Your task to perform on an android device: What is the recent news? Image 0: 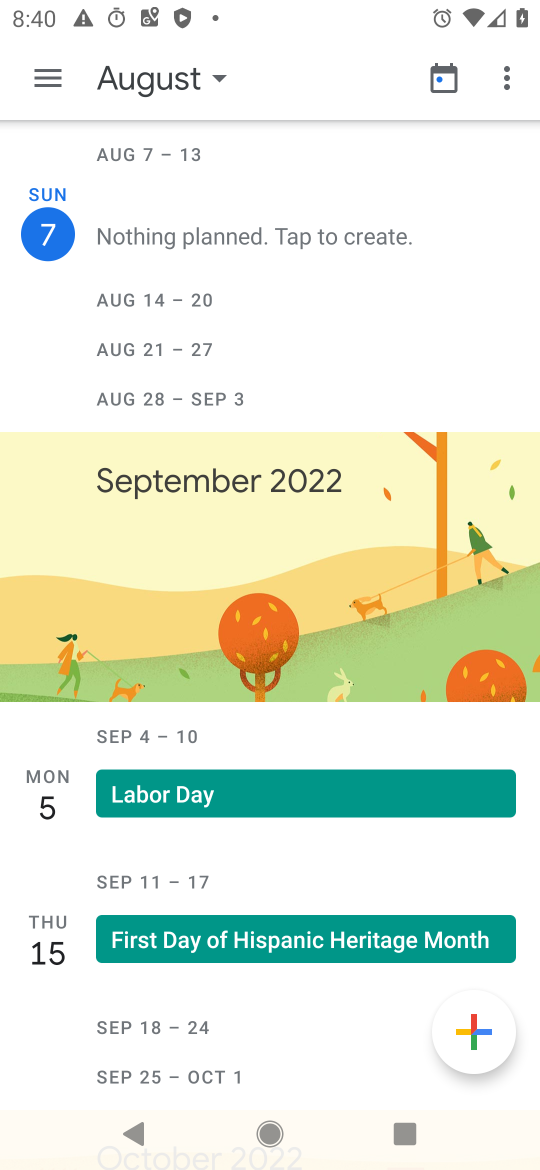
Step 0: press home button
Your task to perform on an android device: What is the recent news? Image 1: 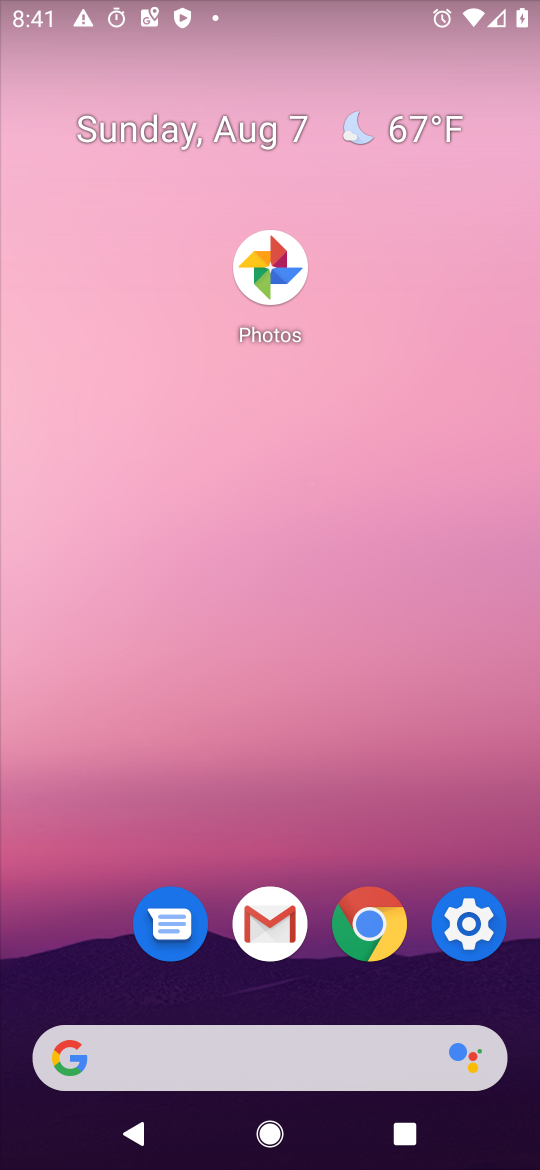
Step 1: drag from (351, 967) to (395, 199)
Your task to perform on an android device: What is the recent news? Image 2: 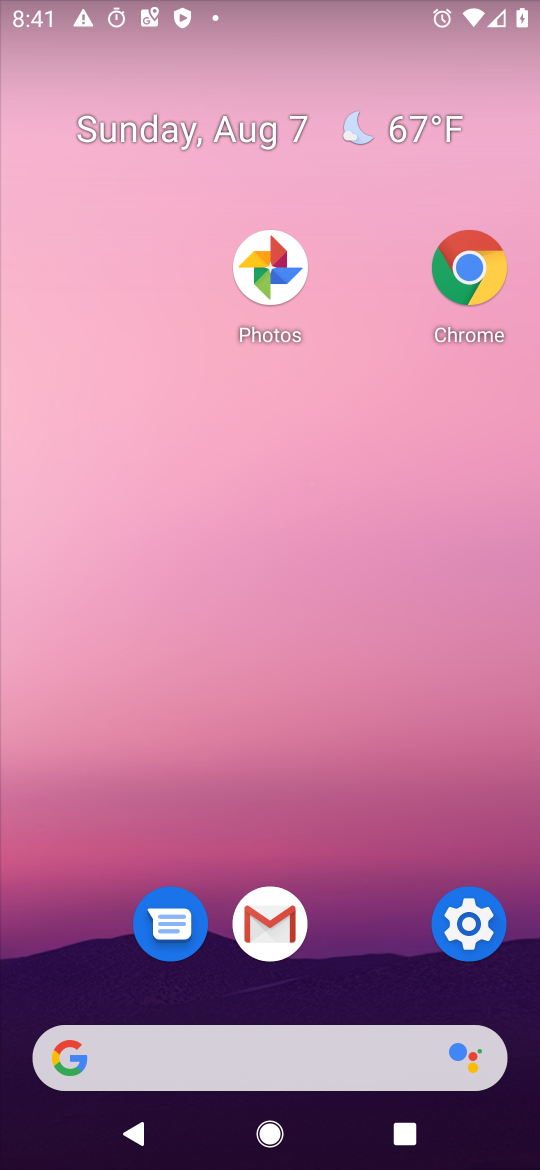
Step 2: drag from (363, 980) to (279, 202)
Your task to perform on an android device: What is the recent news? Image 3: 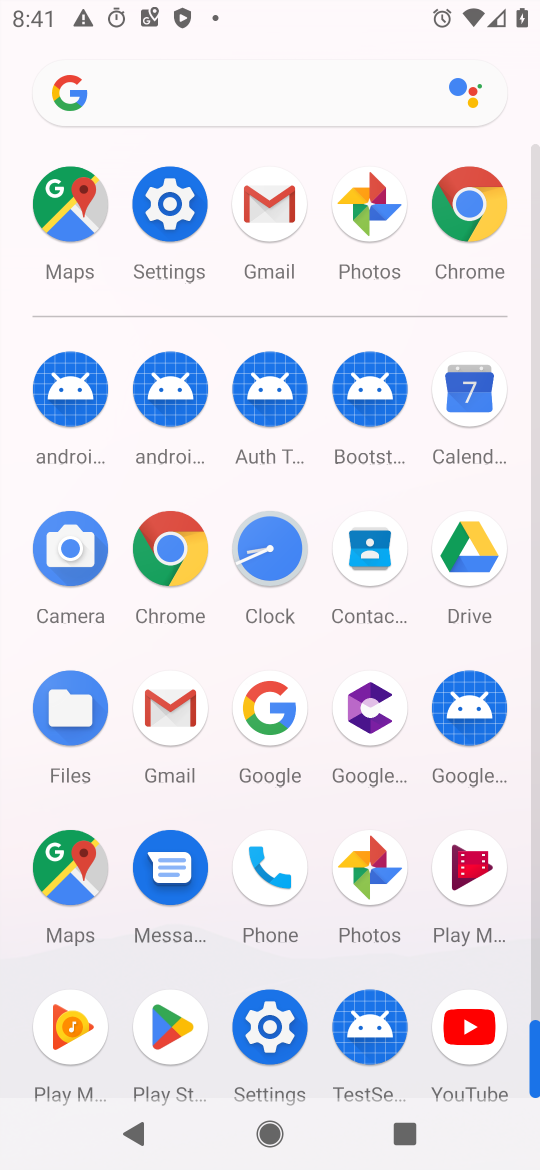
Step 3: click (157, 101)
Your task to perform on an android device: What is the recent news? Image 4: 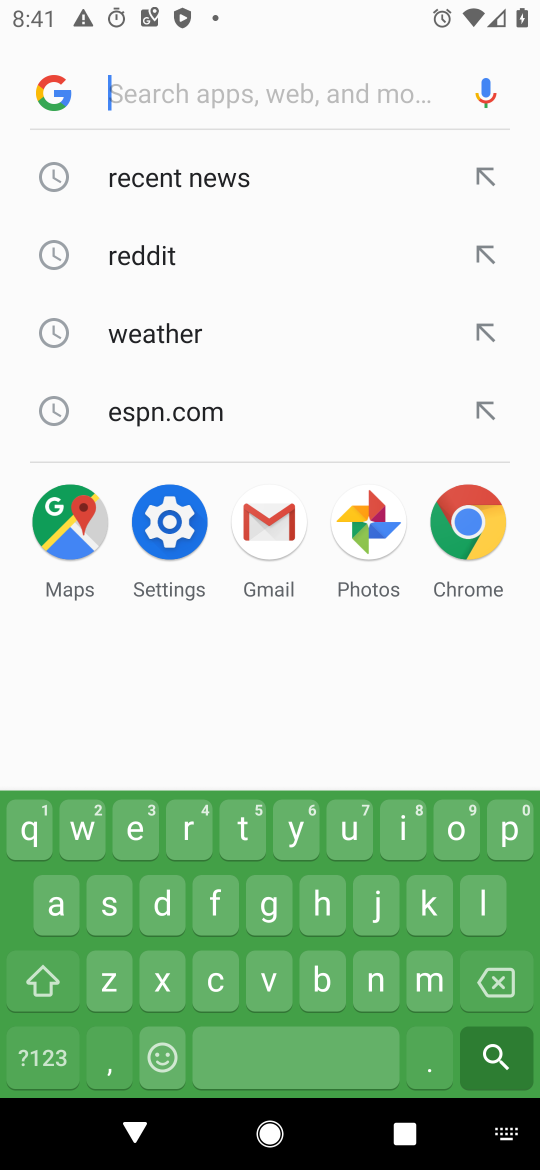
Step 4: click (220, 179)
Your task to perform on an android device: What is the recent news? Image 5: 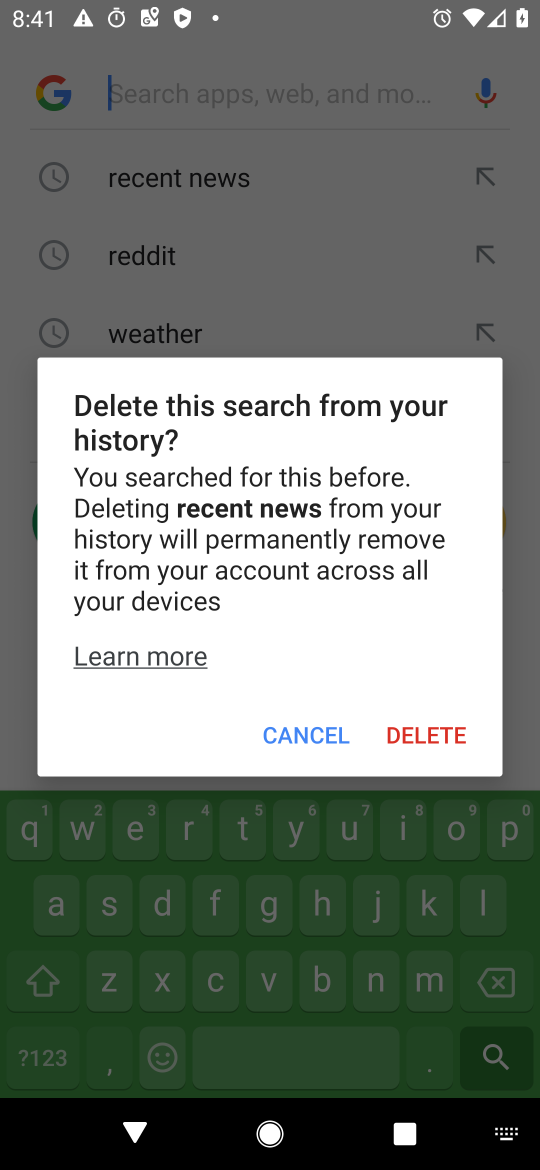
Step 5: click (299, 737)
Your task to perform on an android device: What is the recent news? Image 6: 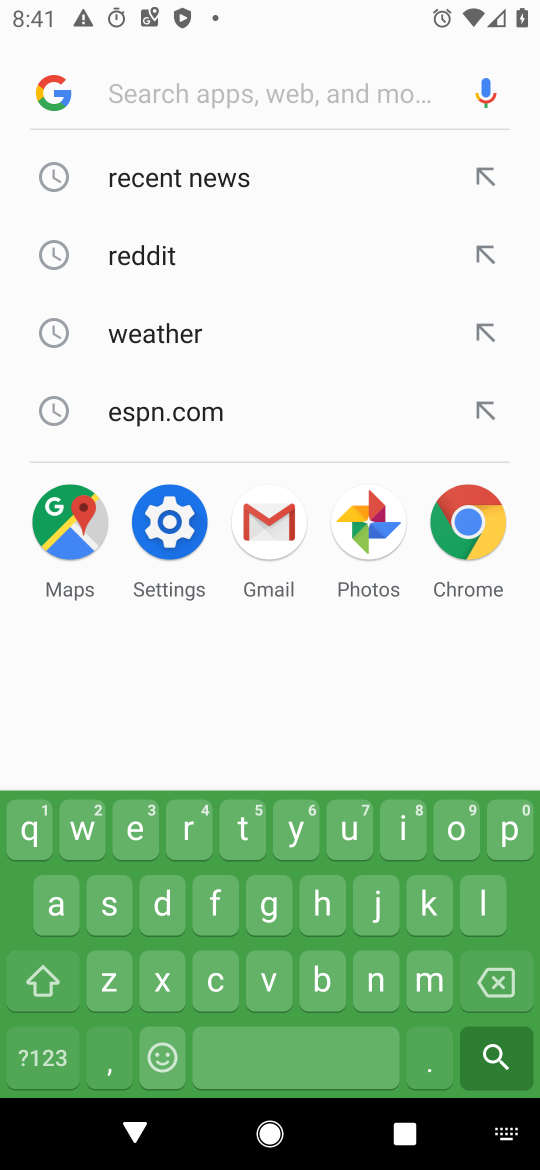
Step 6: click (207, 191)
Your task to perform on an android device: What is the recent news? Image 7: 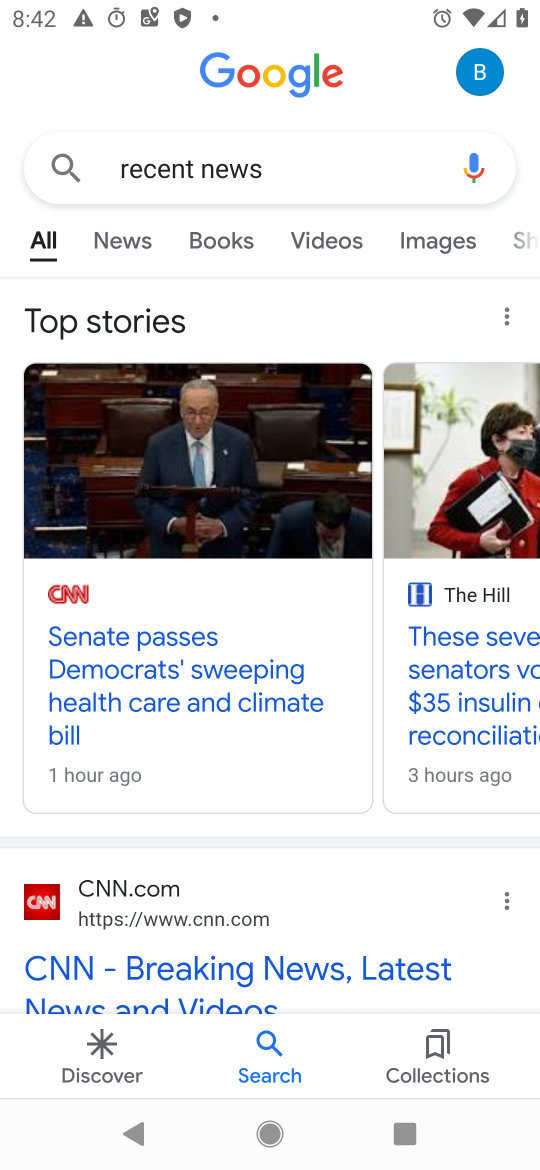
Step 7: task complete